Your task to perform on an android device: Show me productivity apps on the Play Store Image 0: 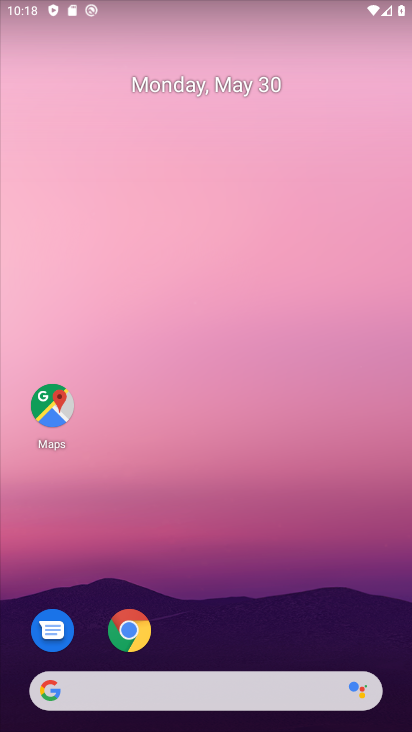
Step 0: drag from (194, 647) to (313, 71)
Your task to perform on an android device: Show me productivity apps on the Play Store Image 1: 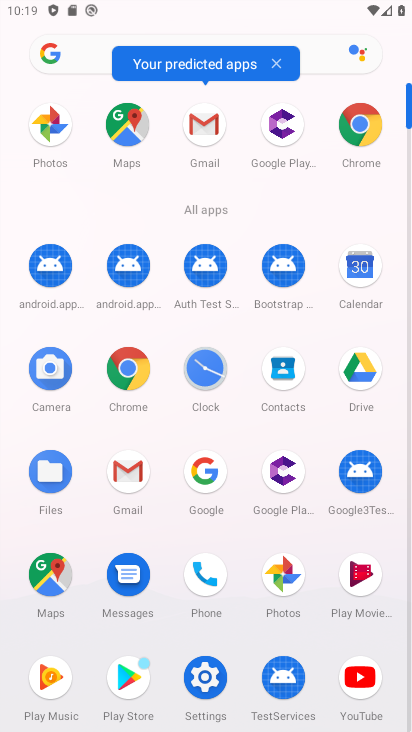
Step 1: drag from (168, 589) to (275, 210)
Your task to perform on an android device: Show me productivity apps on the Play Store Image 2: 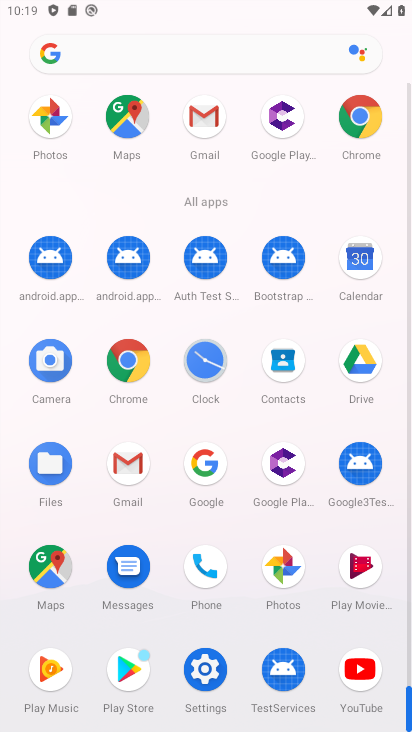
Step 2: click (125, 660)
Your task to perform on an android device: Show me productivity apps on the Play Store Image 3: 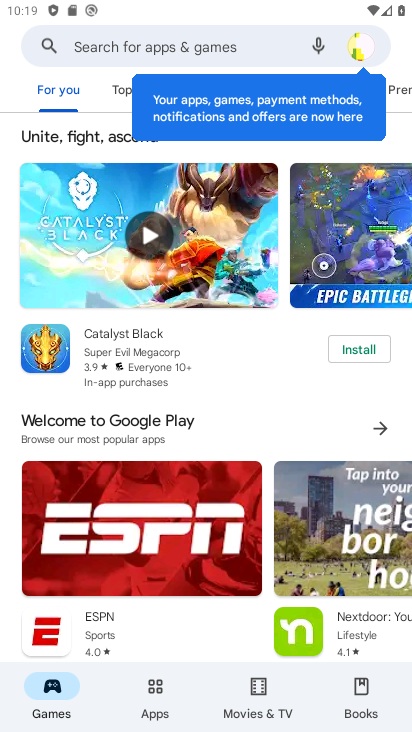
Step 3: click (160, 704)
Your task to perform on an android device: Show me productivity apps on the Play Store Image 4: 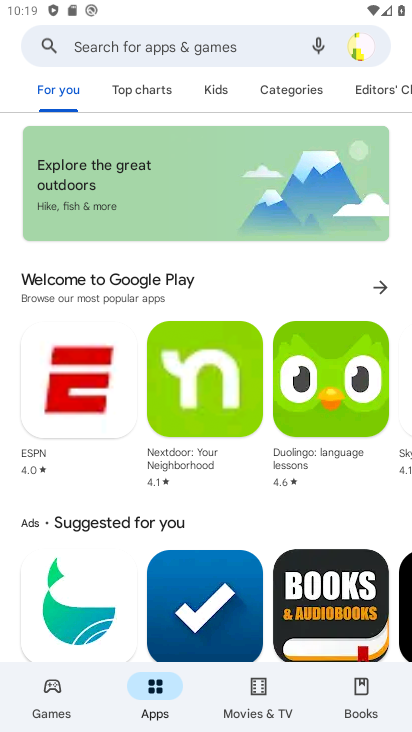
Step 4: click (310, 90)
Your task to perform on an android device: Show me productivity apps on the Play Store Image 5: 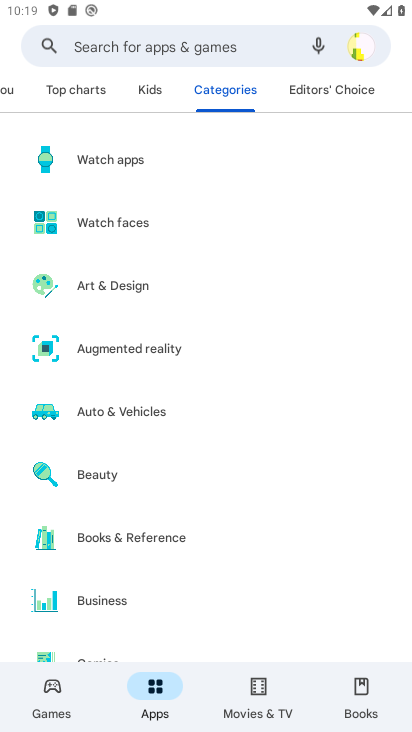
Step 5: drag from (214, 315) to (287, 115)
Your task to perform on an android device: Show me productivity apps on the Play Store Image 6: 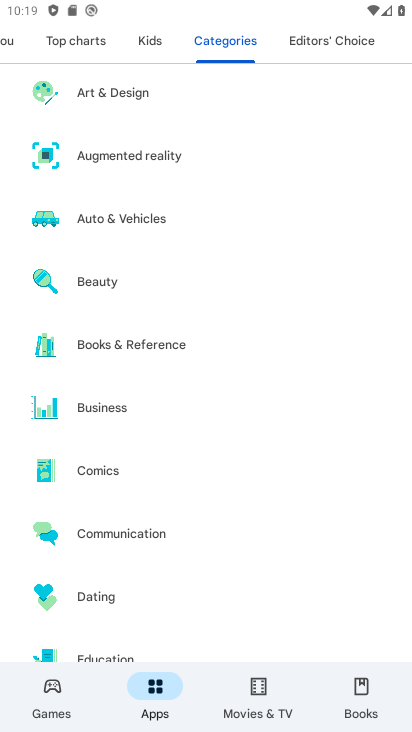
Step 6: drag from (134, 540) to (230, 242)
Your task to perform on an android device: Show me productivity apps on the Play Store Image 7: 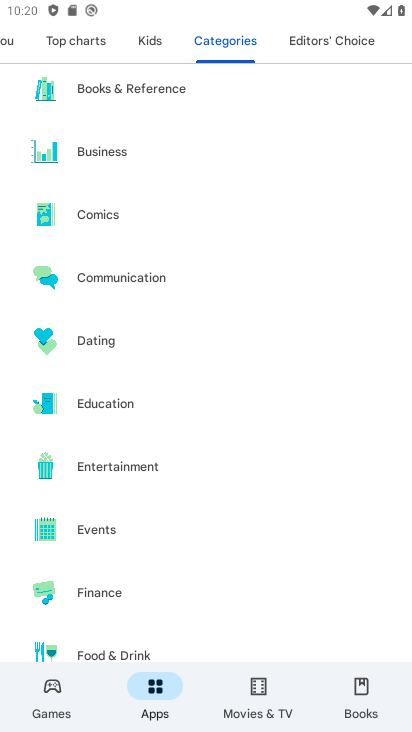
Step 7: drag from (180, 592) to (287, 199)
Your task to perform on an android device: Show me productivity apps on the Play Store Image 8: 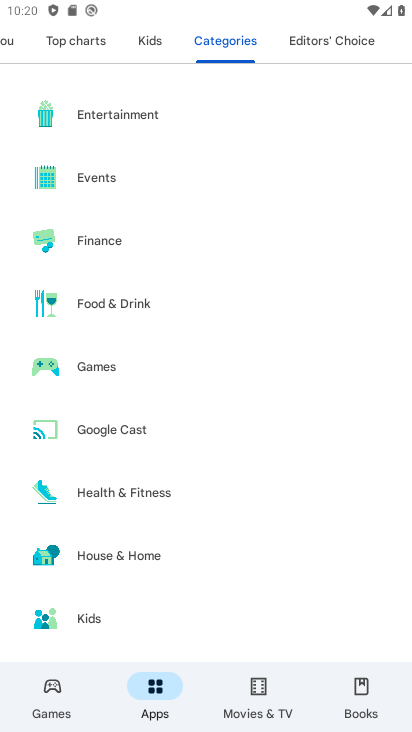
Step 8: drag from (209, 536) to (285, 185)
Your task to perform on an android device: Show me productivity apps on the Play Store Image 9: 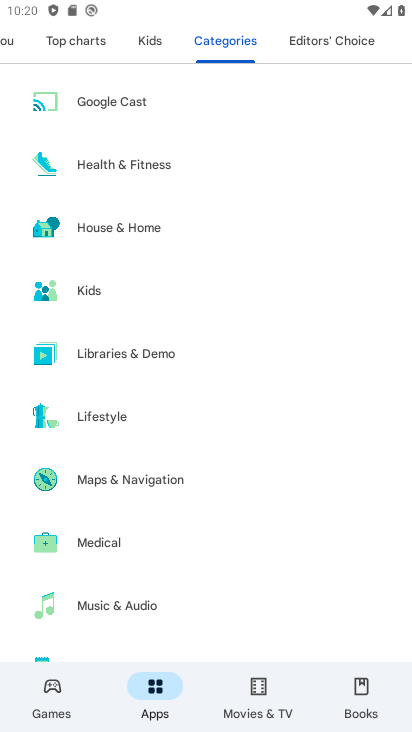
Step 9: drag from (157, 478) to (190, 294)
Your task to perform on an android device: Show me productivity apps on the Play Store Image 10: 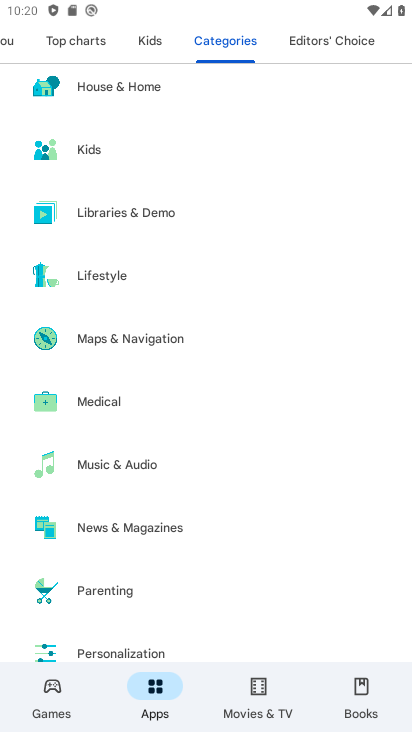
Step 10: drag from (141, 621) to (224, 282)
Your task to perform on an android device: Show me productivity apps on the Play Store Image 11: 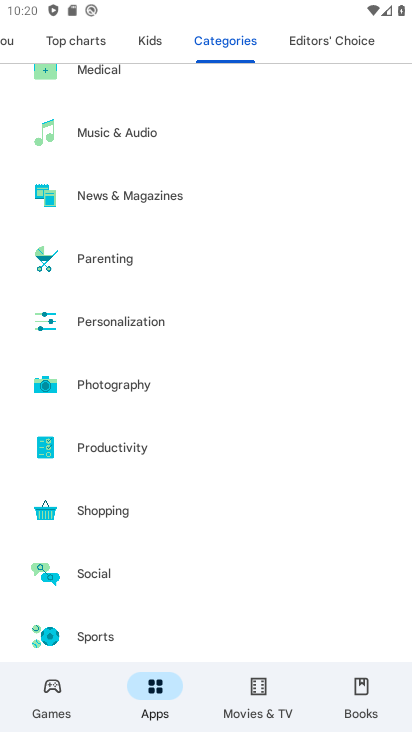
Step 11: click (183, 441)
Your task to perform on an android device: Show me productivity apps on the Play Store Image 12: 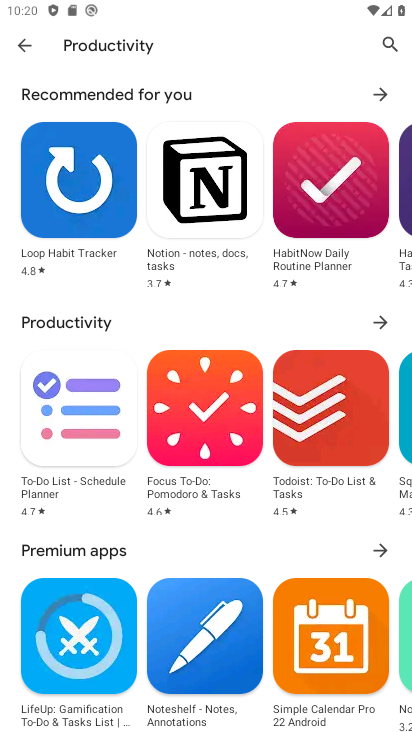
Step 12: task complete